Your task to perform on an android device: open app "LinkedIn" (install if not already installed) Image 0: 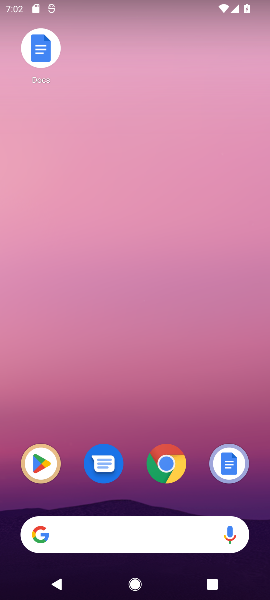
Step 0: drag from (124, 508) to (150, 33)
Your task to perform on an android device: open app "LinkedIn" (install if not already installed) Image 1: 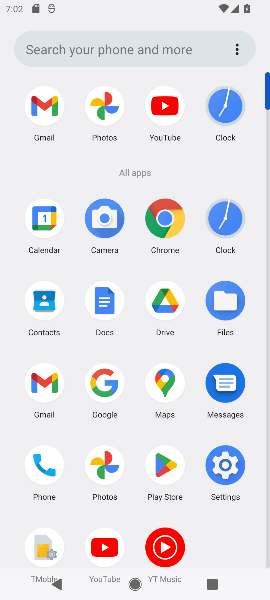
Step 1: click (182, 62)
Your task to perform on an android device: open app "LinkedIn" (install if not already installed) Image 2: 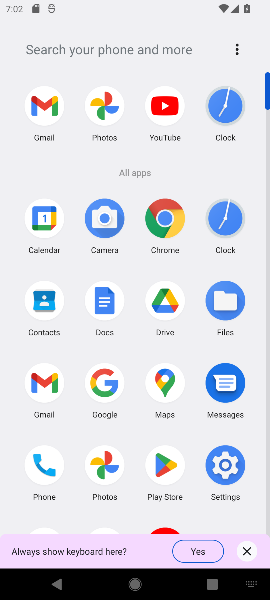
Step 2: type "linkedin"
Your task to perform on an android device: open app "LinkedIn" (install if not already installed) Image 3: 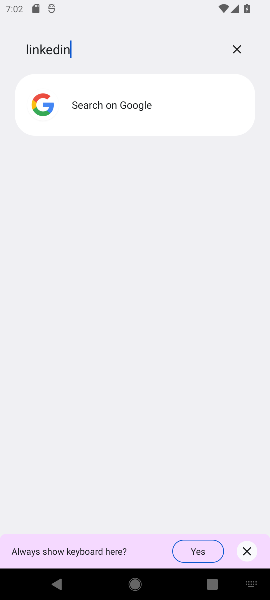
Step 3: press home button
Your task to perform on an android device: open app "LinkedIn" (install if not already installed) Image 4: 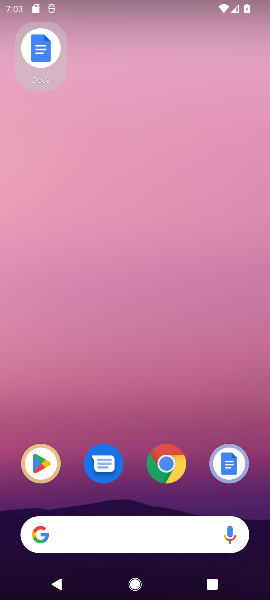
Step 4: drag from (133, 328) to (136, 21)
Your task to perform on an android device: open app "LinkedIn" (install if not already installed) Image 5: 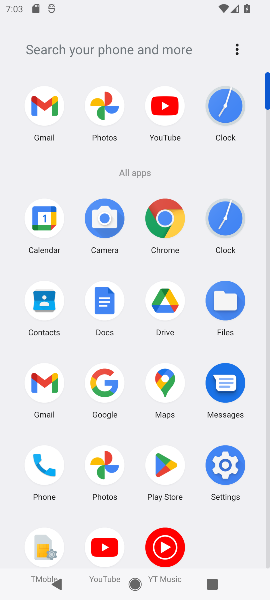
Step 5: click (90, 48)
Your task to perform on an android device: open app "LinkedIn" (install if not already installed) Image 6: 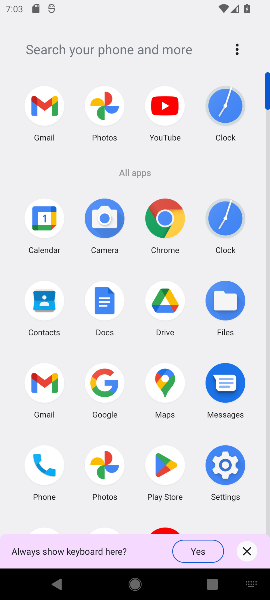
Step 6: type "linkedin"
Your task to perform on an android device: open app "LinkedIn" (install if not already installed) Image 7: 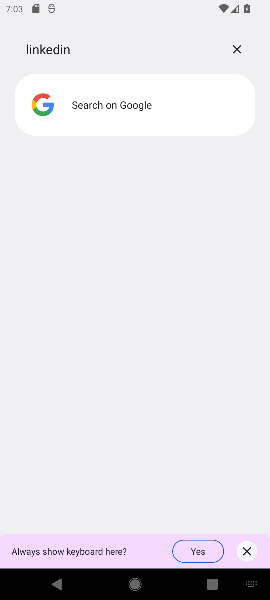
Step 7: click (59, 60)
Your task to perform on an android device: open app "LinkedIn" (install if not already installed) Image 8: 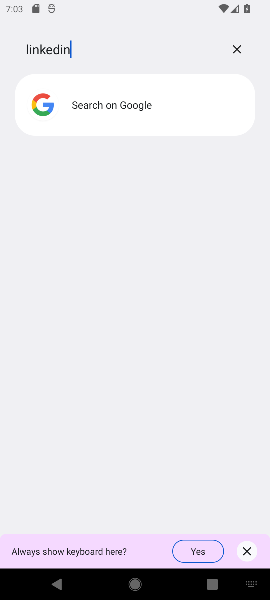
Step 8: task complete